Your task to perform on an android device: turn pop-ups off in chrome Image 0: 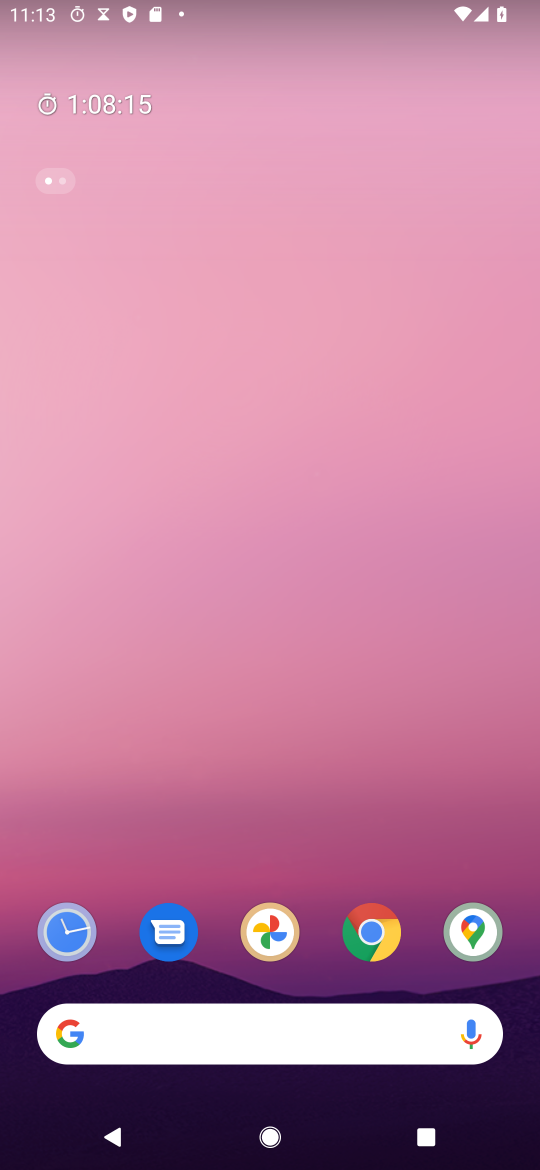
Step 0: drag from (379, 842) to (365, 86)
Your task to perform on an android device: turn pop-ups off in chrome Image 1: 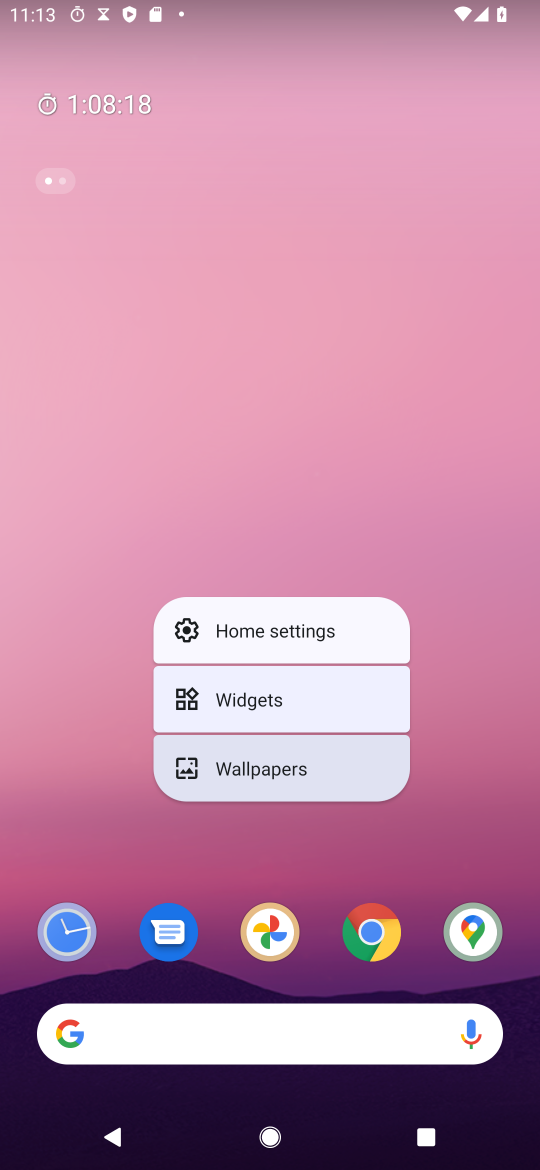
Step 1: click (380, 948)
Your task to perform on an android device: turn pop-ups off in chrome Image 2: 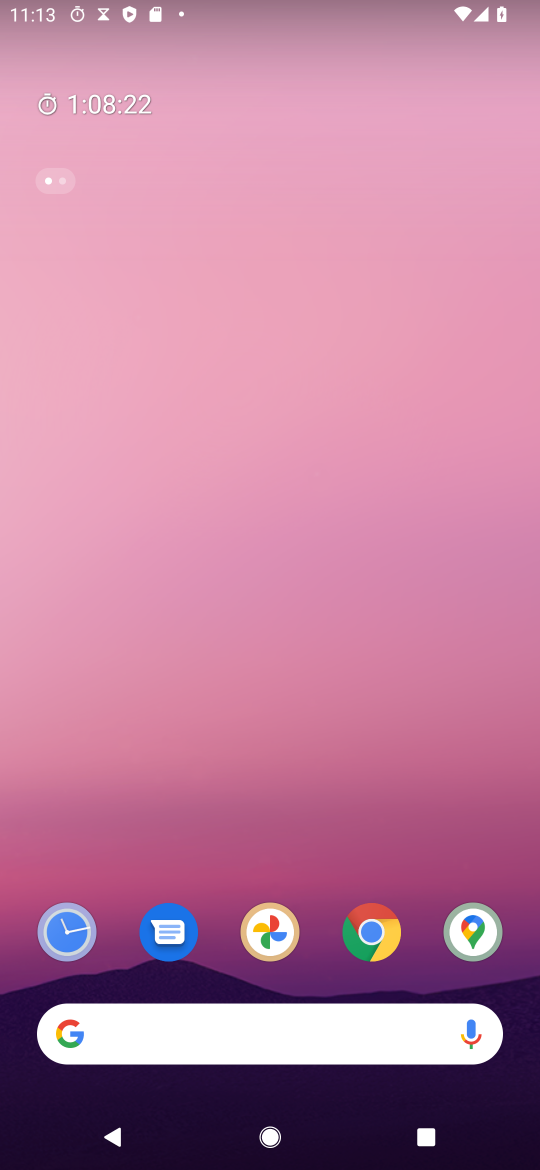
Step 2: click (370, 924)
Your task to perform on an android device: turn pop-ups off in chrome Image 3: 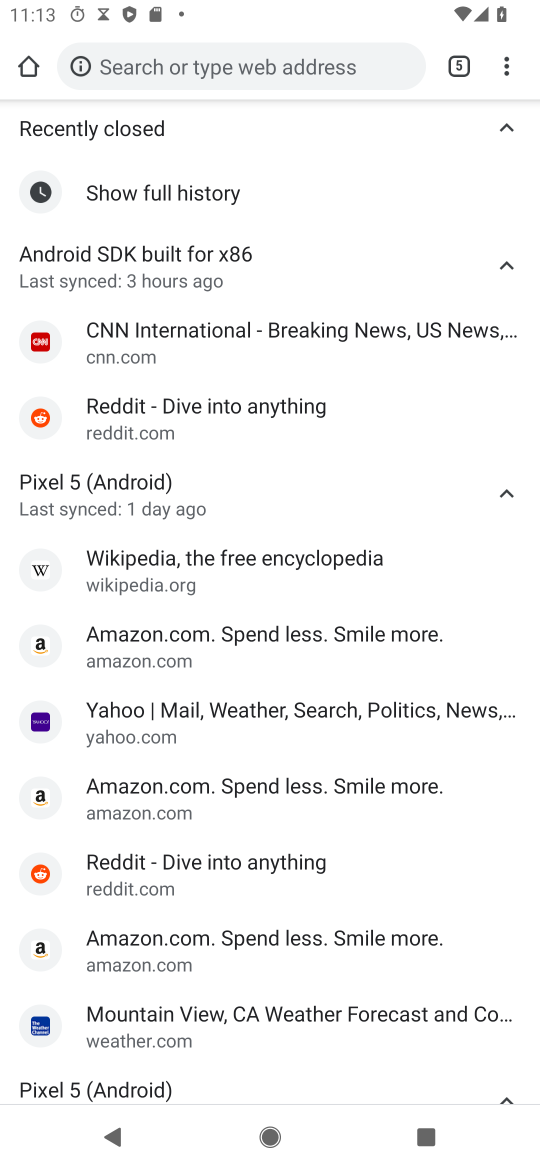
Step 3: click (516, 70)
Your task to perform on an android device: turn pop-ups off in chrome Image 4: 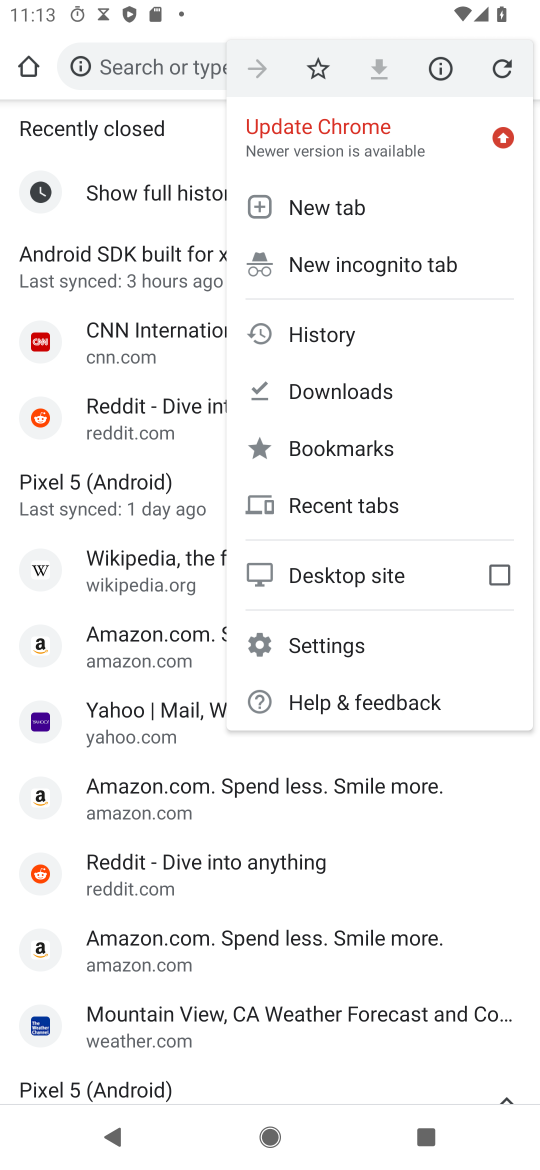
Step 4: click (386, 653)
Your task to perform on an android device: turn pop-ups off in chrome Image 5: 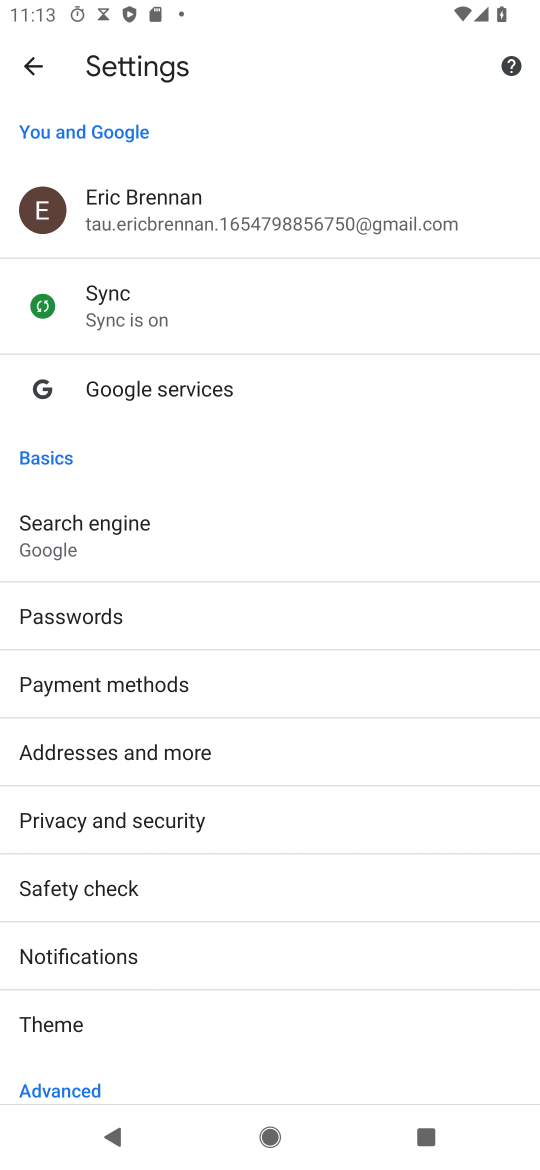
Step 5: drag from (315, 1051) to (283, 356)
Your task to perform on an android device: turn pop-ups off in chrome Image 6: 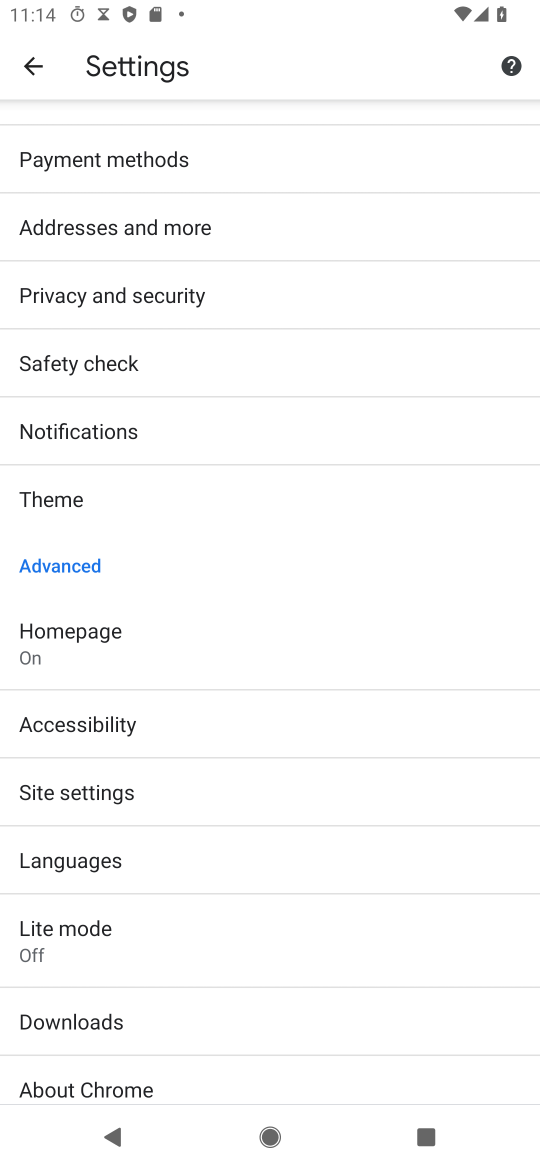
Step 6: click (149, 806)
Your task to perform on an android device: turn pop-ups off in chrome Image 7: 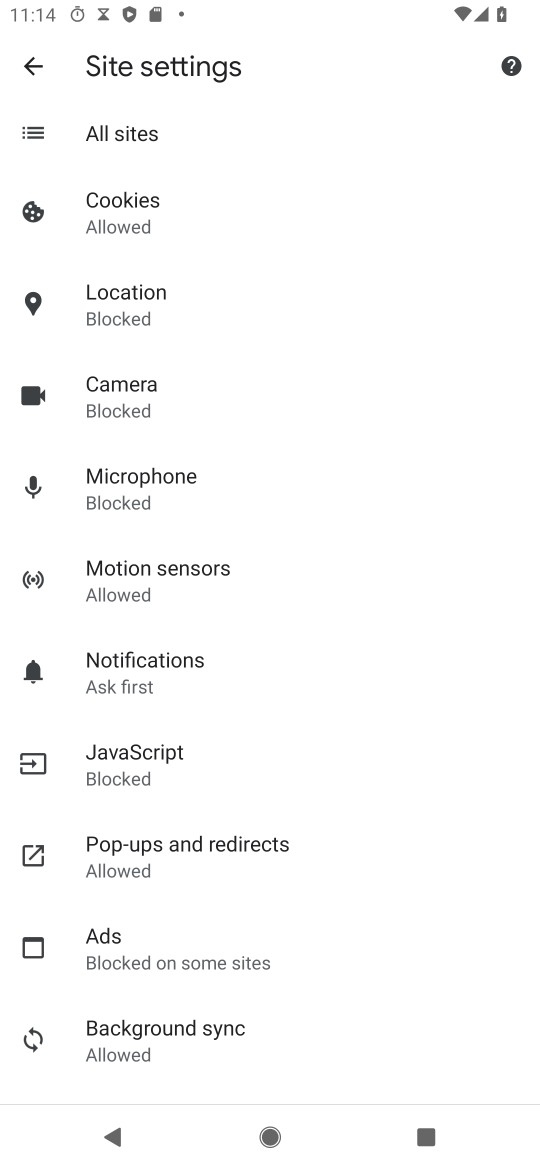
Step 7: click (296, 863)
Your task to perform on an android device: turn pop-ups off in chrome Image 8: 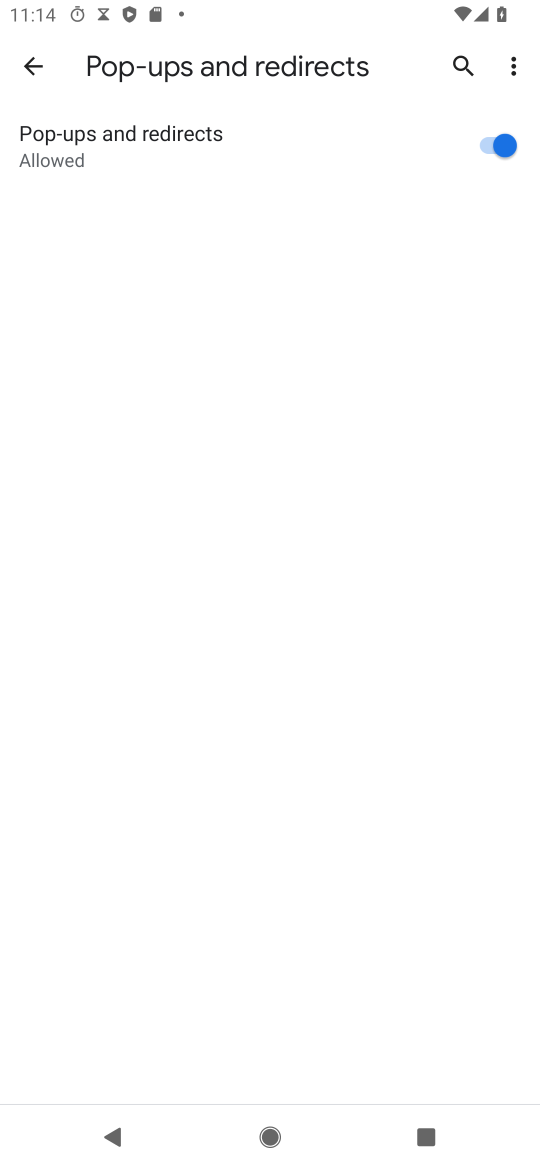
Step 8: click (509, 157)
Your task to perform on an android device: turn pop-ups off in chrome Image 9: 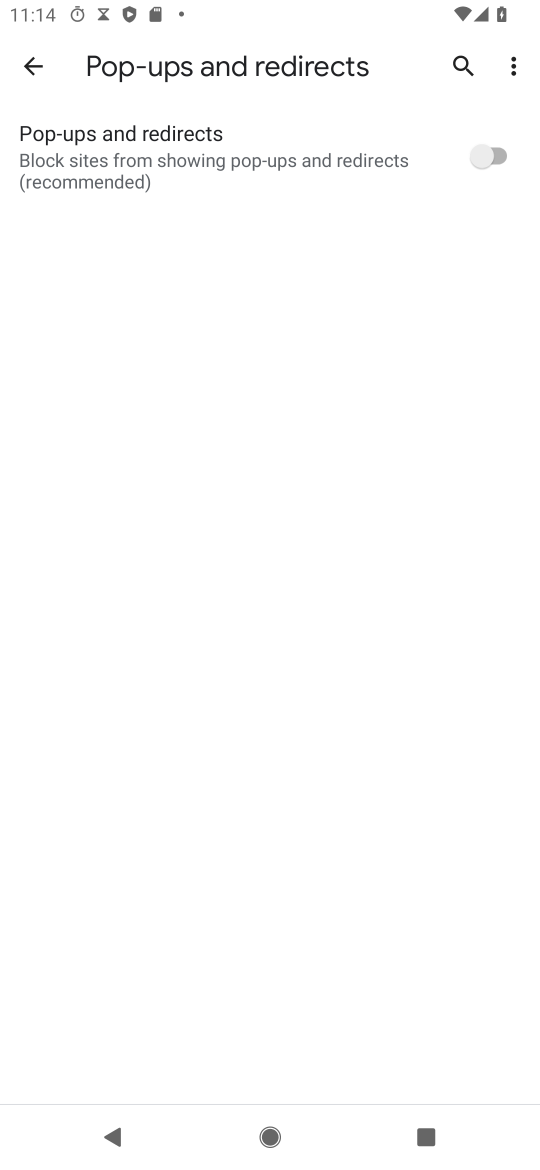
Step 9: task complete